Your task to perform on an android device: find photos in the google photos app Image 0: 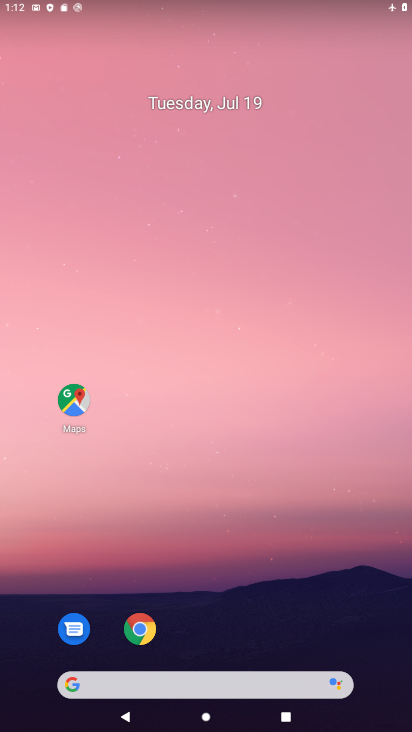
Step 0: drag from (190, 586) to (189, 123)
Your task to perform on an android device: find photos in the google photos app Image 1: 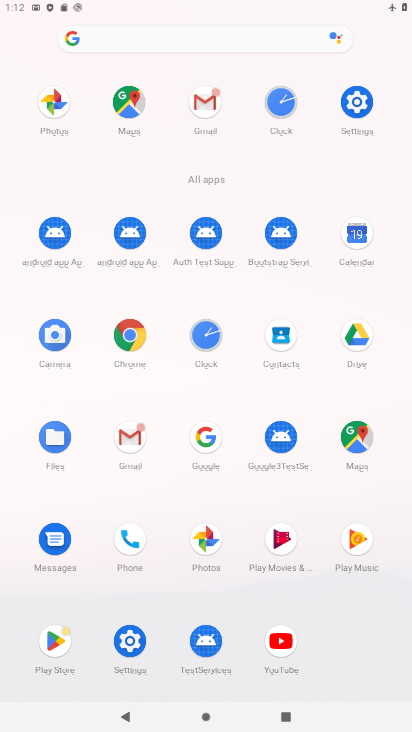
Step 1: click (203, 547)
Your task to perform on an android device: find photos in the google photos app Image 2: 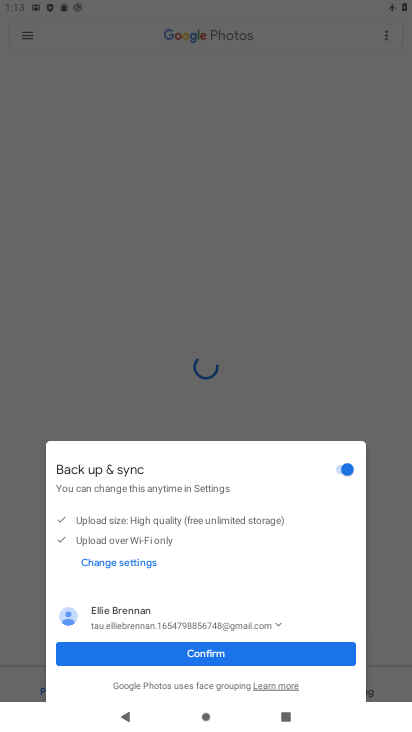
Step 2: click (188, 651)
Your task to perform on an android device: find photos in the google photos app Image 3: 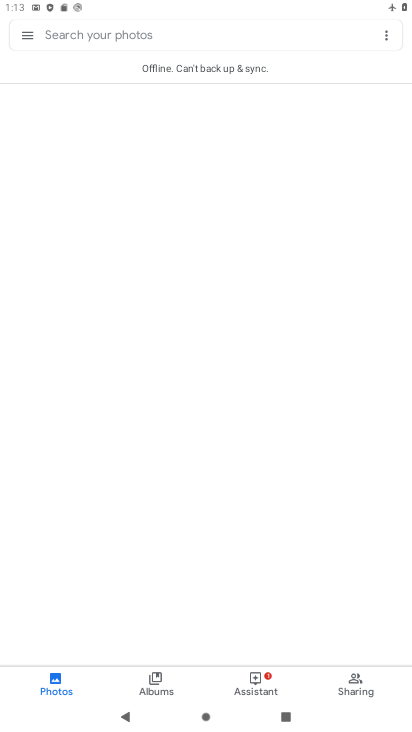
Step 3: task complete